Your task to perform on an android device: Open display settings Image 0: 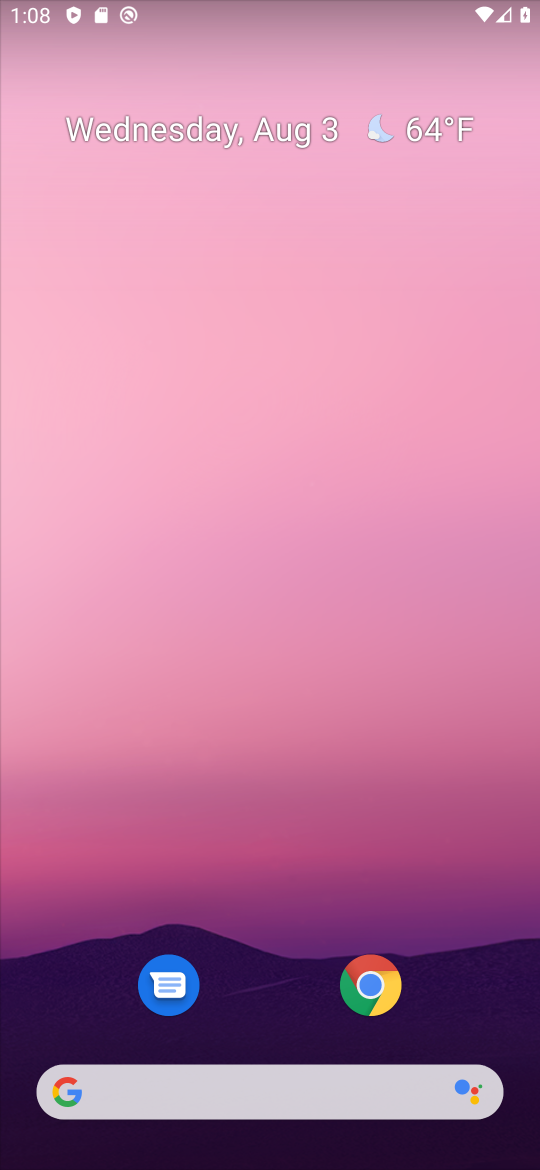
Step 0: drag from (267, 1015) to (297, 39)
Your task to perform on an android device: Open display settings Image 1: 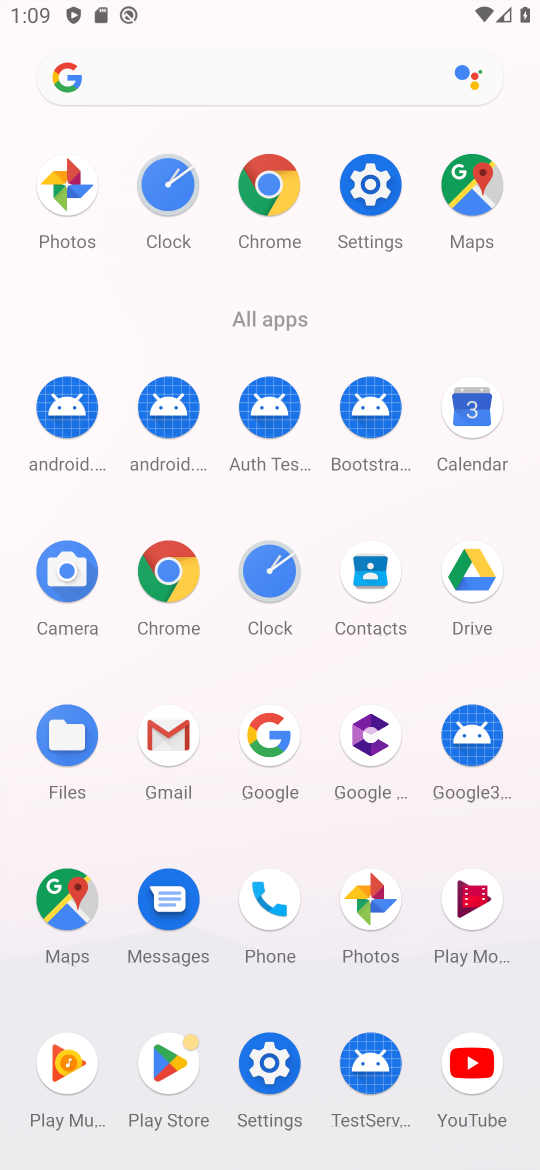
Step 1: click (375, 175)
Your task to perform on an android device: Open display settings Image 2: 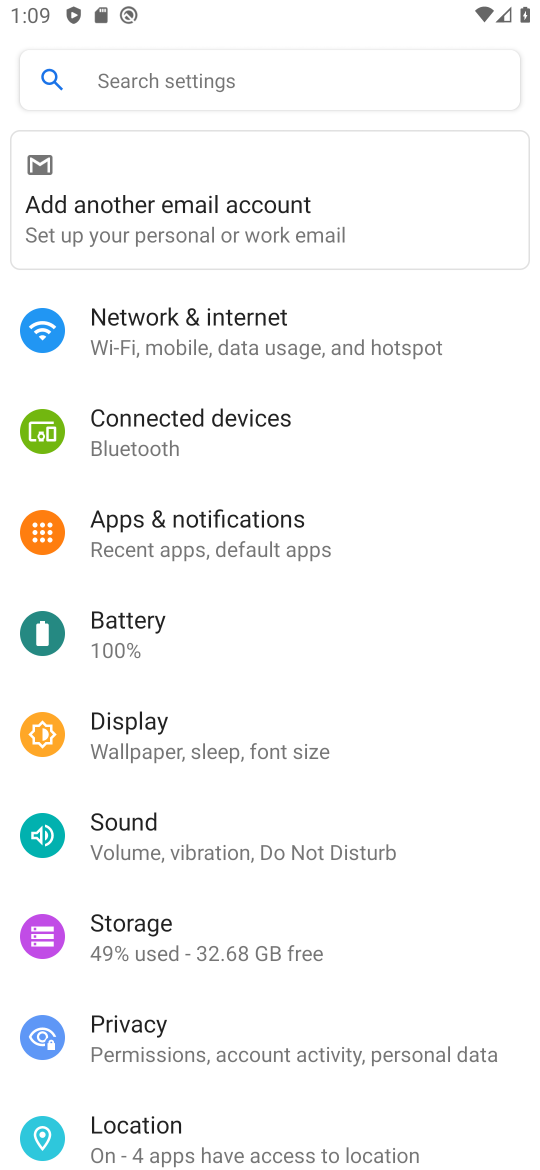
Step 2: click (184, 715)
Your task to perform on an android device: Open display settings Image 3: 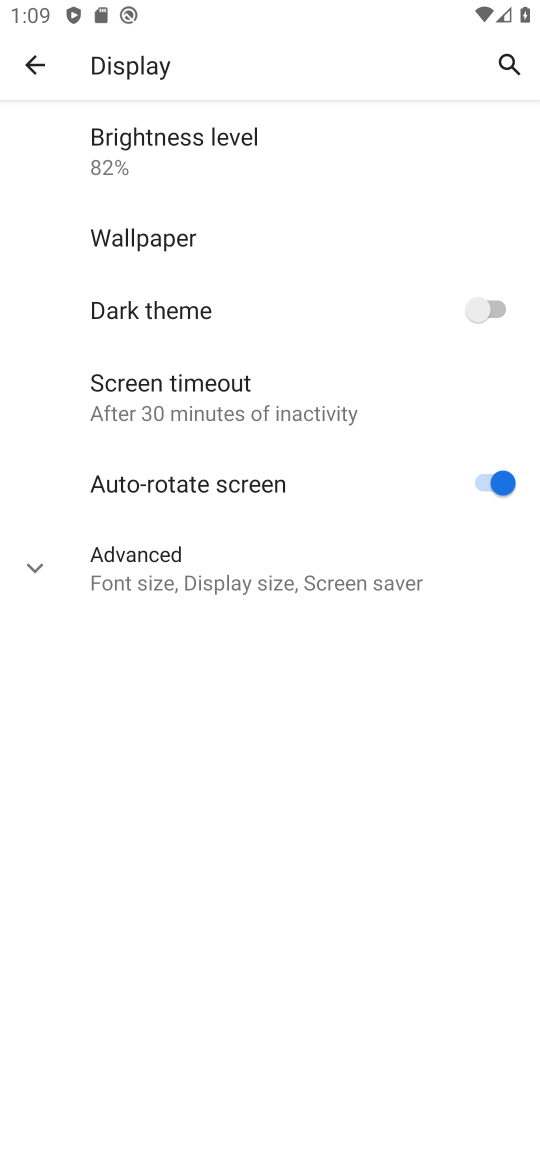
Step 3: click (37, 548)
Your task to perform on an android device: Open display settings Image 4: 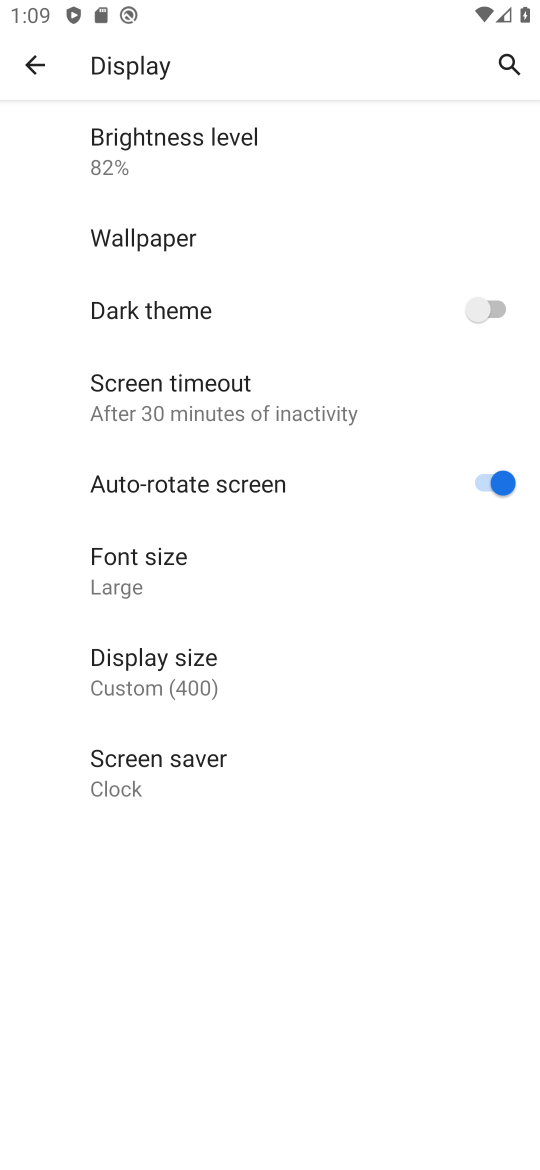
Step 4: task complete